Your task to perform on an android device: Go to display settings Image 0: 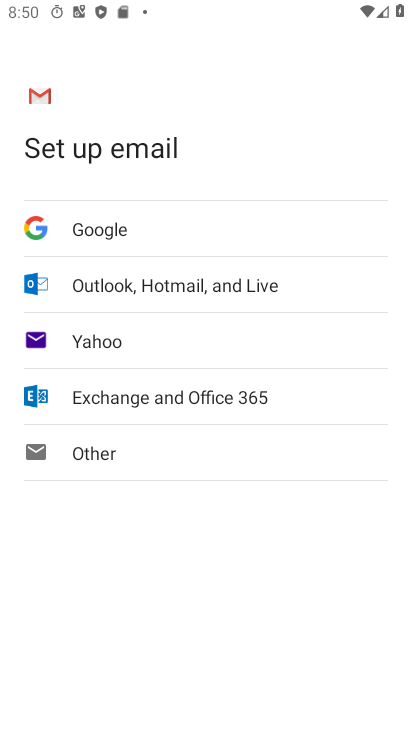
Step 0: press home button
Your task to perform on an android device: Go to display settings Image 1: 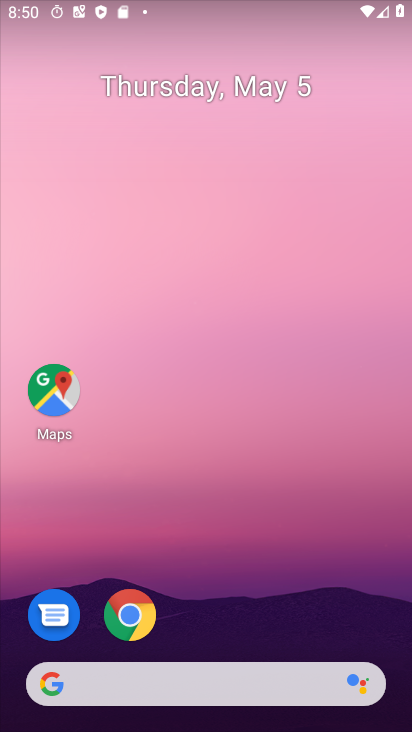
Step 1: drag from (224, 623) to (239, 205)
Your task to perform on an android device: Go to display settings Image 2: 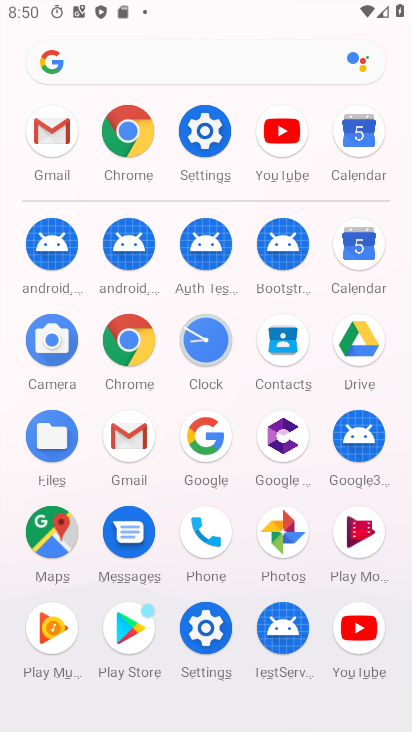
Step 2: click (203, 652)
Your task to perform on an android device: Go to display settings Image 3: 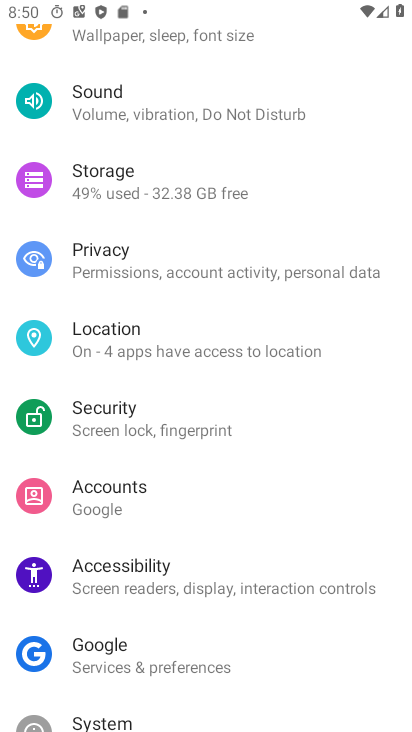
Step 3: drag from (170, 212) to (160, 474)
Your task to perform on an android device: Go to display settings Image 4: 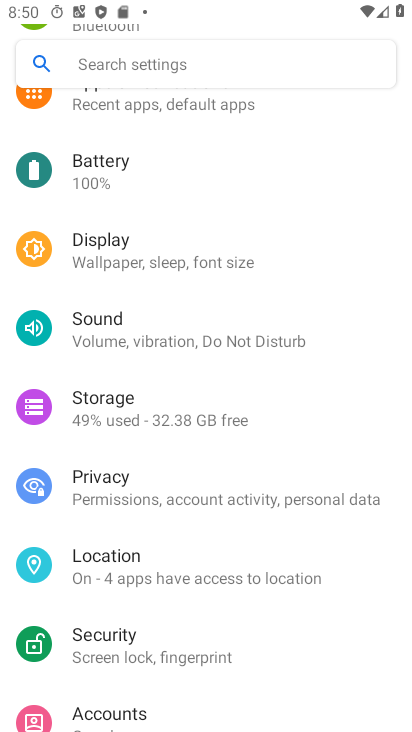
Step 4: click (170, 258)
Your task to perform on an android device: Go to display settings Image 5: 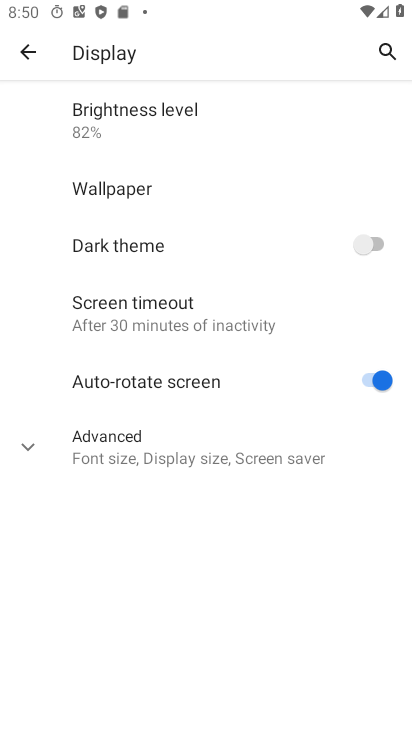
Step 5: task complete